Your task to perform on an android device: Toggle the flashlight Image 0: 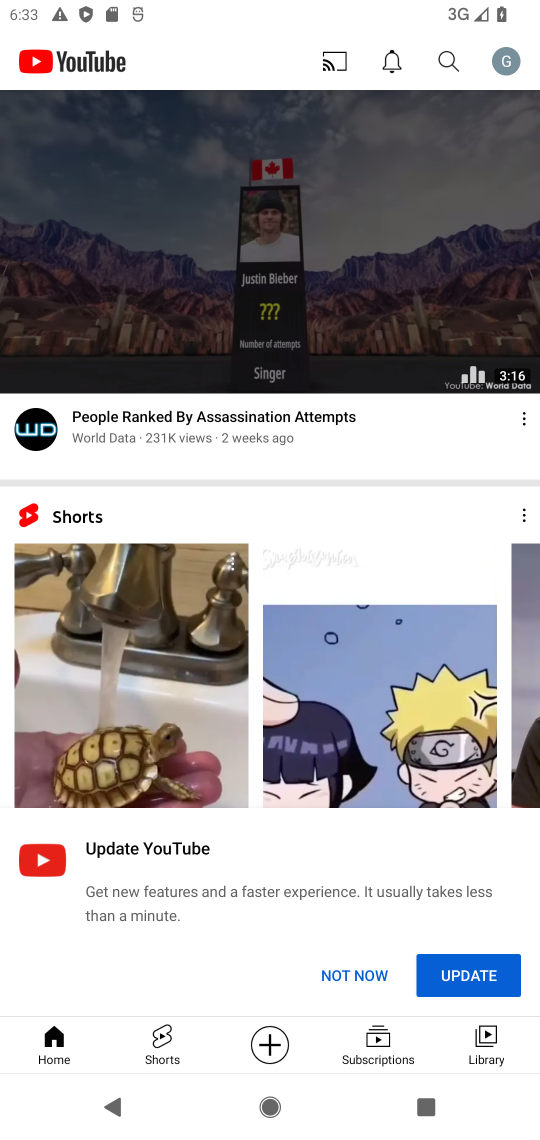
Step 0: drag from (376, 6) to (352, 930)
Your task to perform on an android device: Toggle the flashlight Image 1: 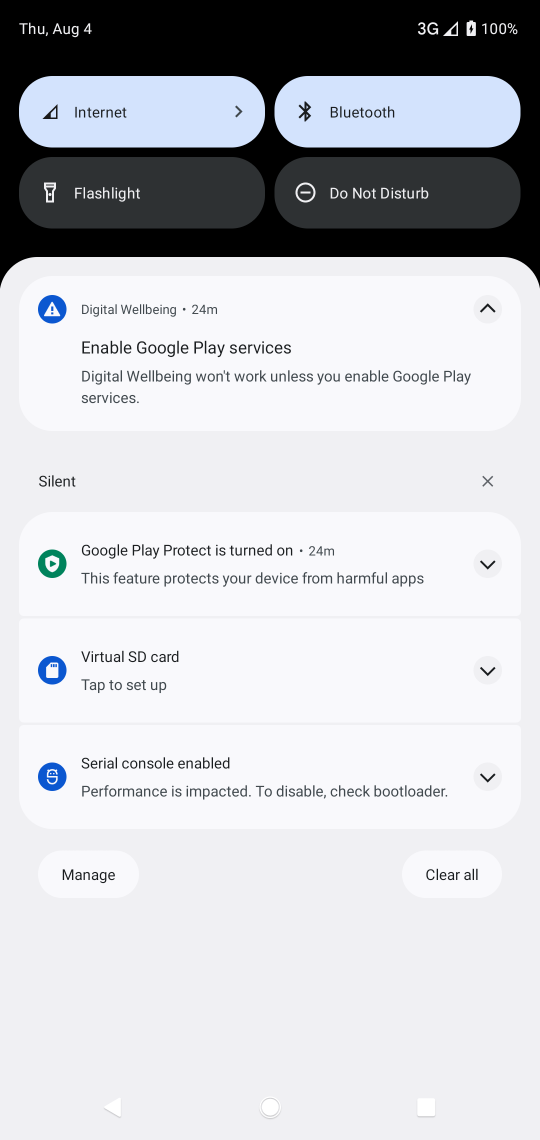
Step 1: drag from (259, 240) to (292, 906)
Your task to perform on an android device: Toggle the flashlight Image 2: 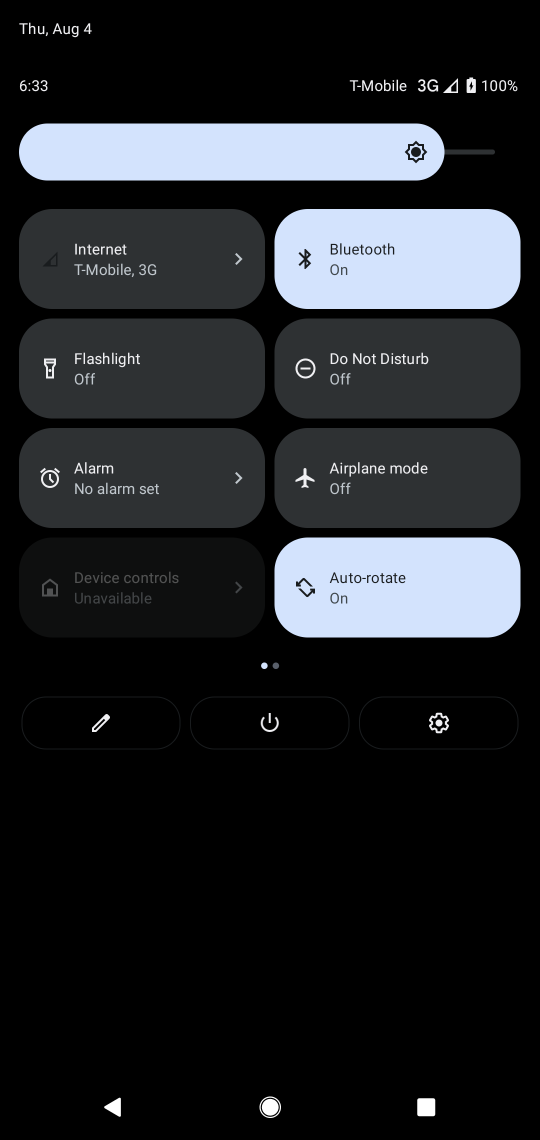
Step 2: click (105, 380)
Your task to perform on an android device: Toggle the flashlight Image 3: 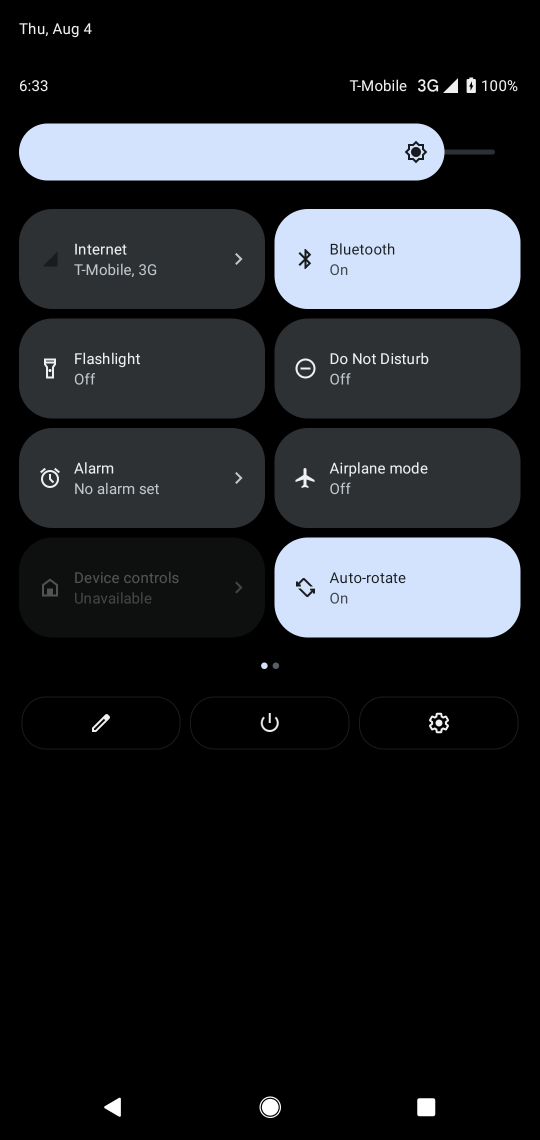
Step 3: click (121, 369)
Your task to perform on an android device: Toggle the flashlight Image 4: 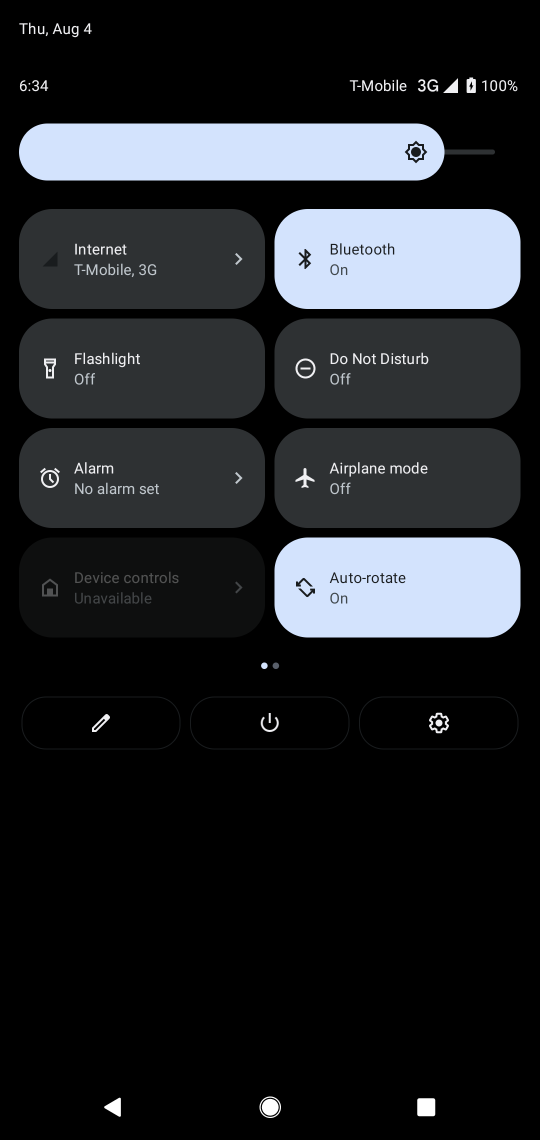
Step 4: task complete